Your task to perform on an android device: Go to sound settings Image 0: 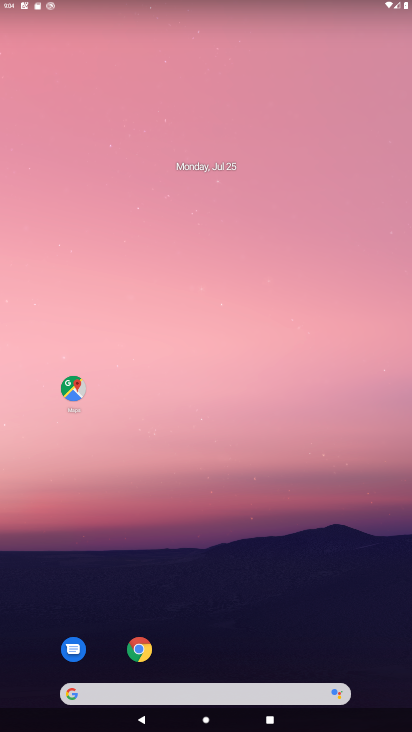
Step 0: drag from (241, 666) to (91, 53)
Your task to perform on an android device: Go to sound settings Image 1: 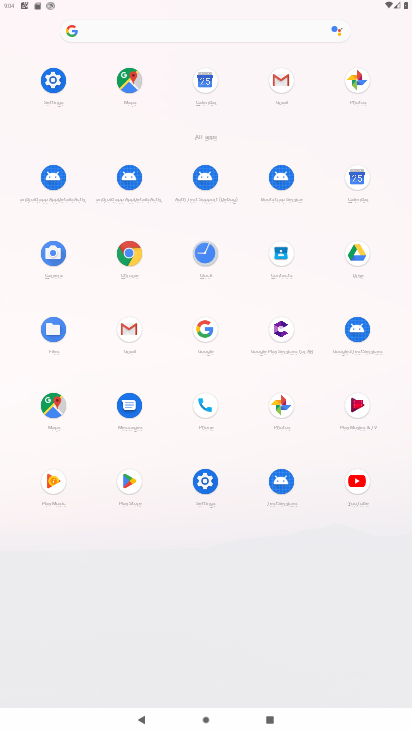
Step 1: click (58, 89)
Your task to perform on an android device: Go to sound settings Image 2: 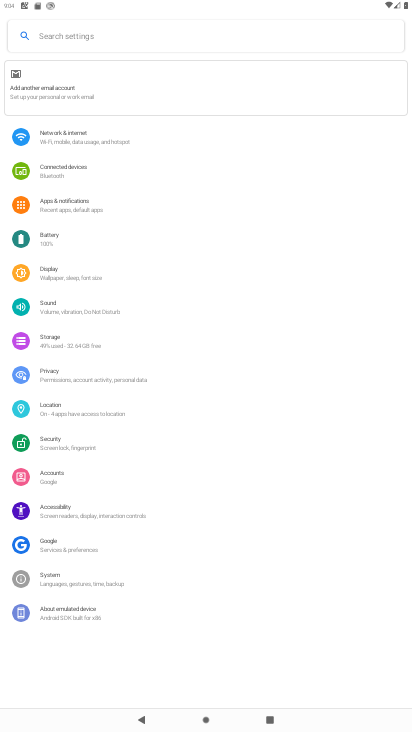
Step 2: click (56, 310)
Your task to perform on an android device: Go to sound settings Image 3: 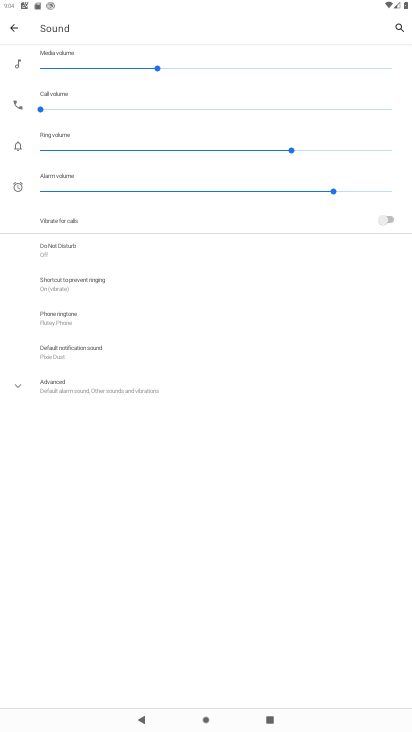
Step 3: click (66, 391)
Your task to perform on an android device: Go to sound settings Image 4: 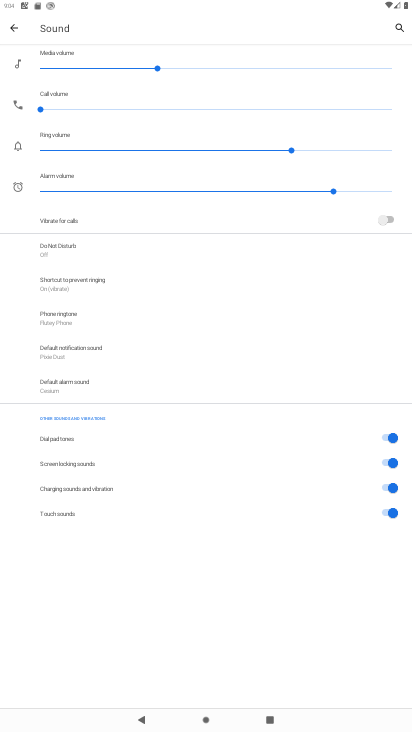
Step 4: task complete